Your task to perform on an android device: What is the news today? Image 0: 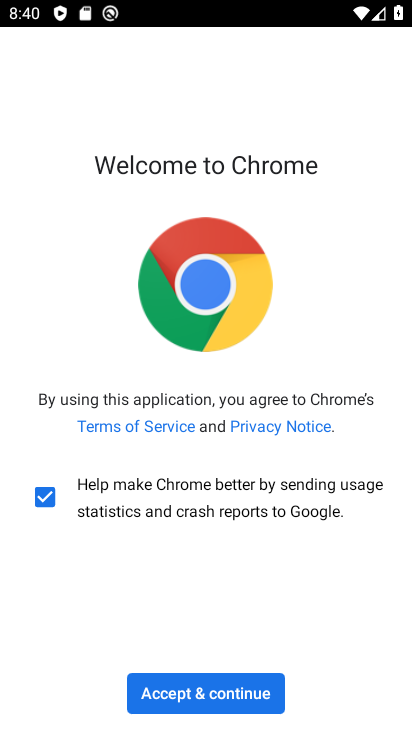
Step 0: press home button
Your task to perform on an android device: What is the news today? Image 1: 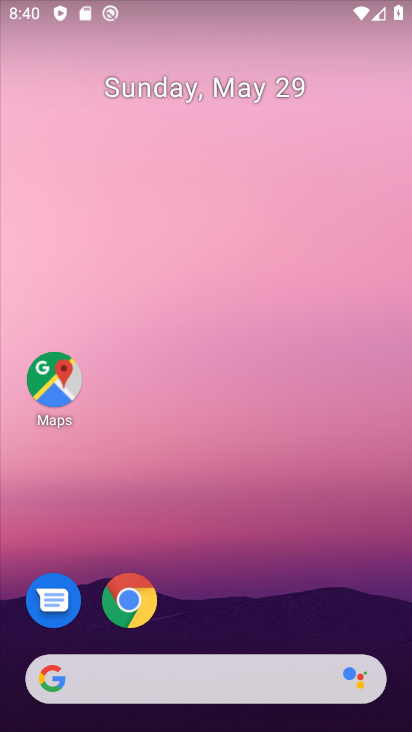
Step 1: task complete